Your task to perform on an android device: open the mobile data screen to see how much data has been used Image 0: 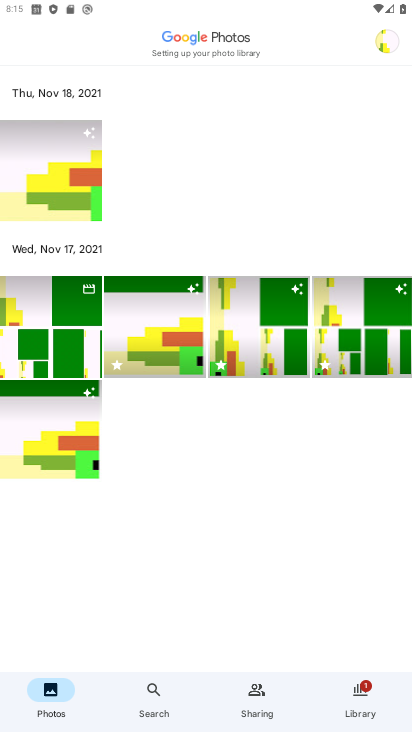
Step 0: press home button
Your task to perform on an android device: open the mobile data screen to see how much data has been used Image 1: 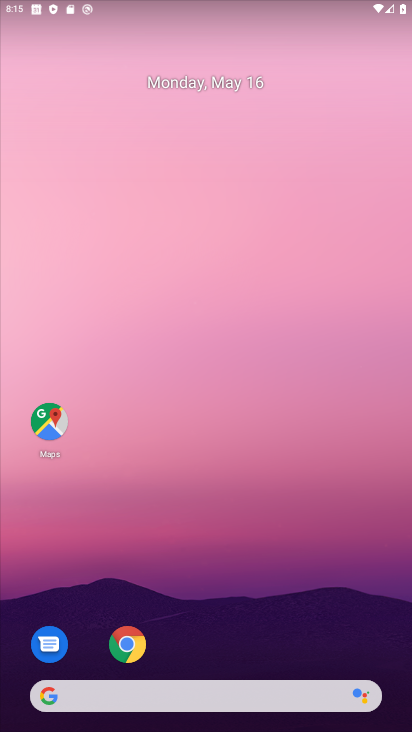
Step 1: drag from (207, 727) to (327, 37)
Your task to perform on an android device: open the mobile data screen to see how much data has been used Image 2: 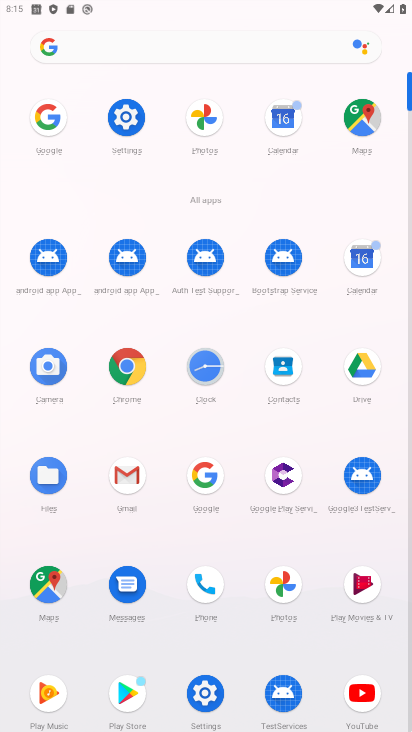
Step 2: click (124, 120)
Your task to perform on an android device: open the mobile data screen to see how much data has been used Image 3: 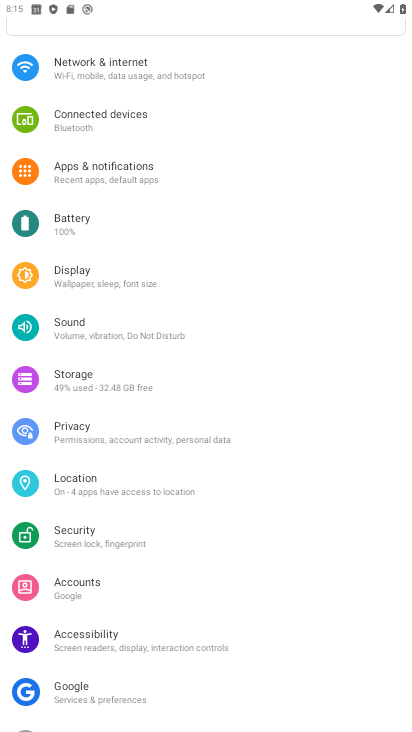
Step 3: click (223, 64)
Your task to perform on an android device: open the mobile data screen to see how much data has been used Image 4: 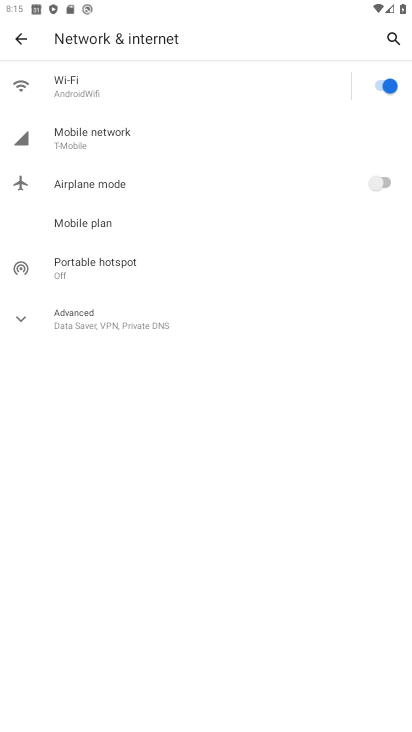
Step 4: click (131, 144)
Your task to perform on an android device: open the mobile data screen to see how much data has been used Image 5: 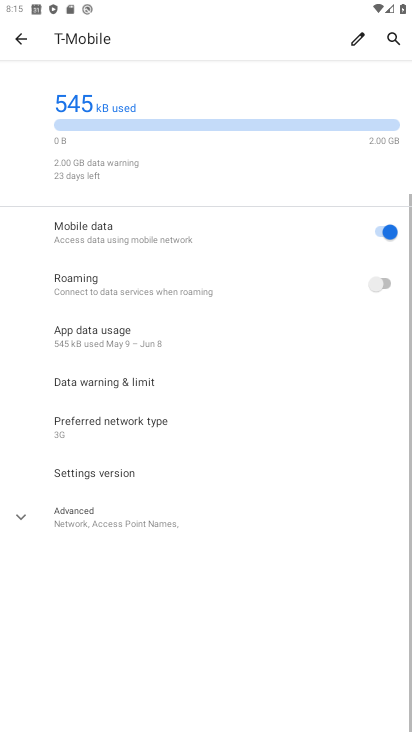
Step 5: task complete